Your task to perform on an android device: snooze an email in the gmail app Image 0: 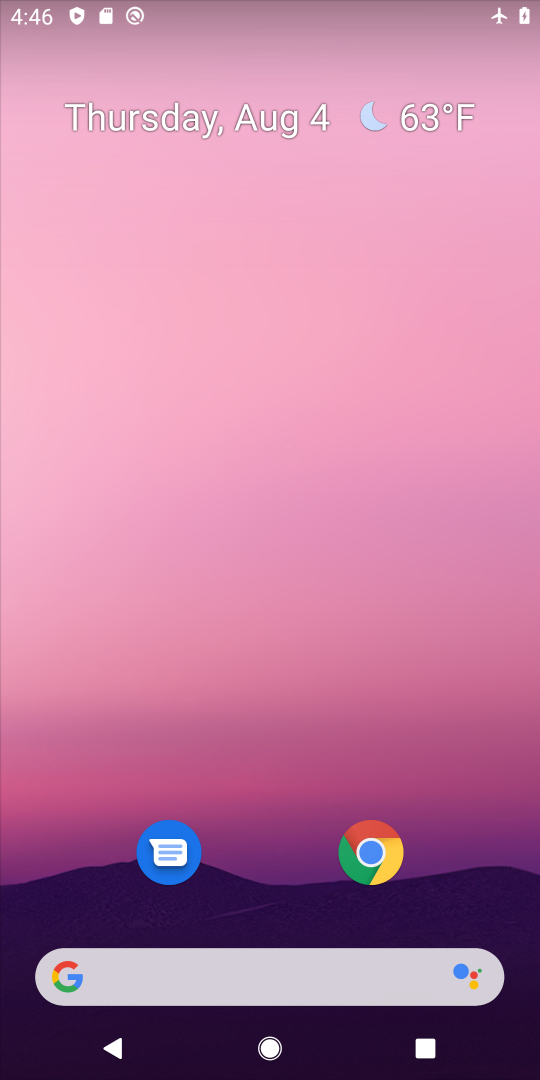
Step 0: drag from (284, 929) to (287, 168)
Your task to perform on an android device: snooze an email in the gmail app Image 1: 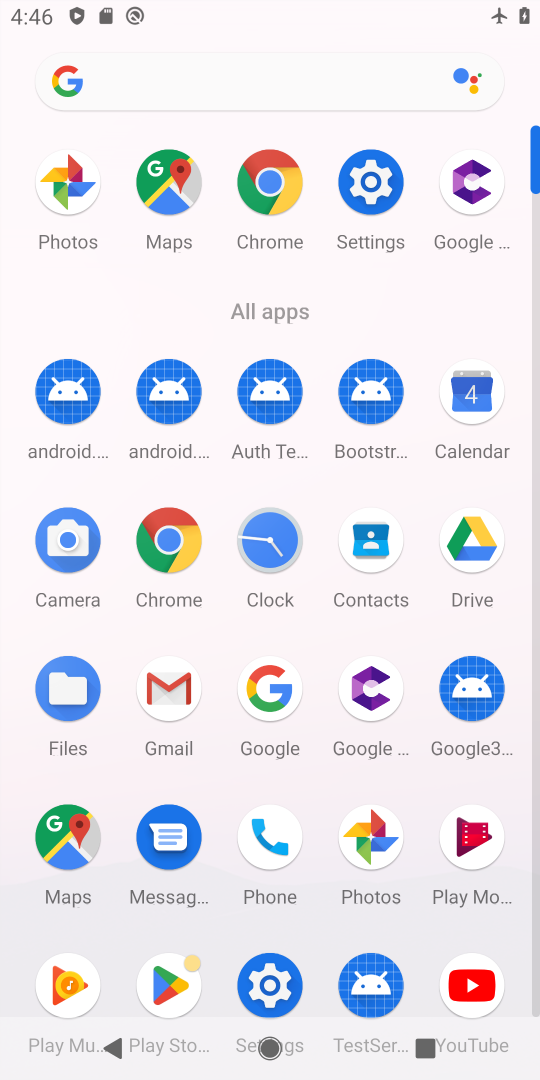
Step 1: click (164, 679)
Your task to perform on an android device: snooze an email in the gmail app Image 2: 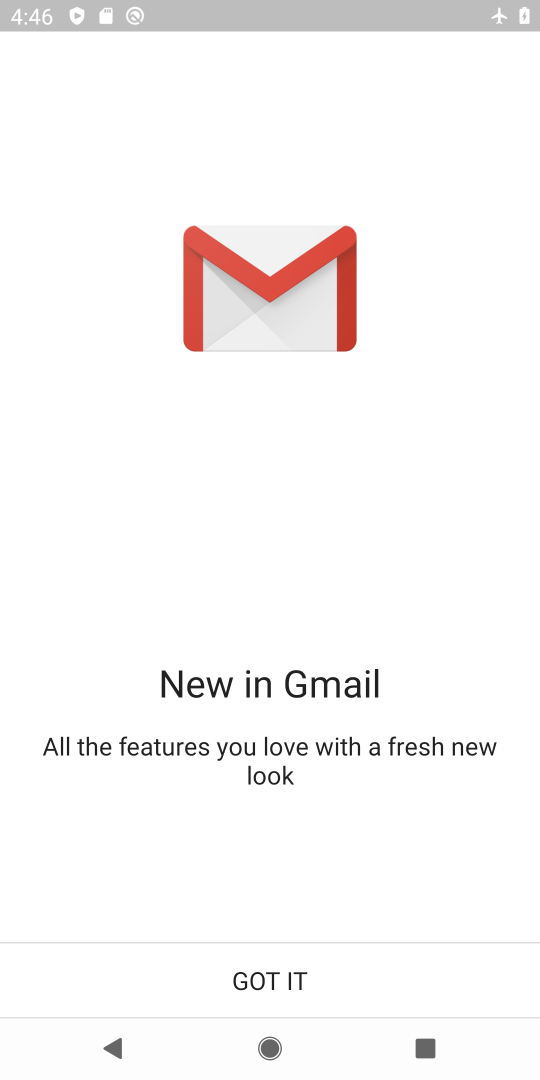
Step 2: click (257, 984)
Your task to perform on an android device: snooze an email in the gmail app Image 3: 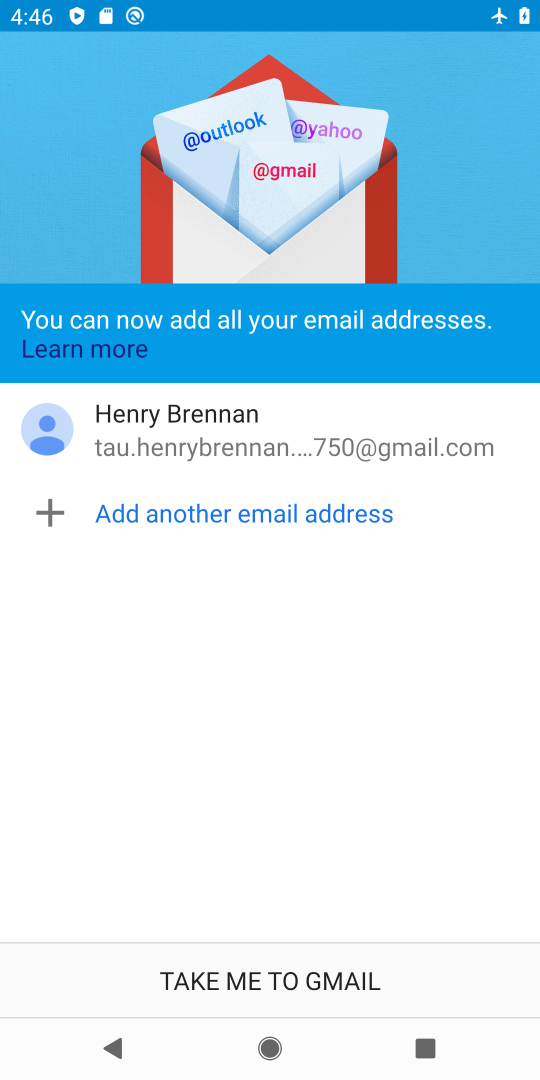
Step 3: click (179, 437)
Your task to perform on an android device: snooze an email in the gmail app Image 4: 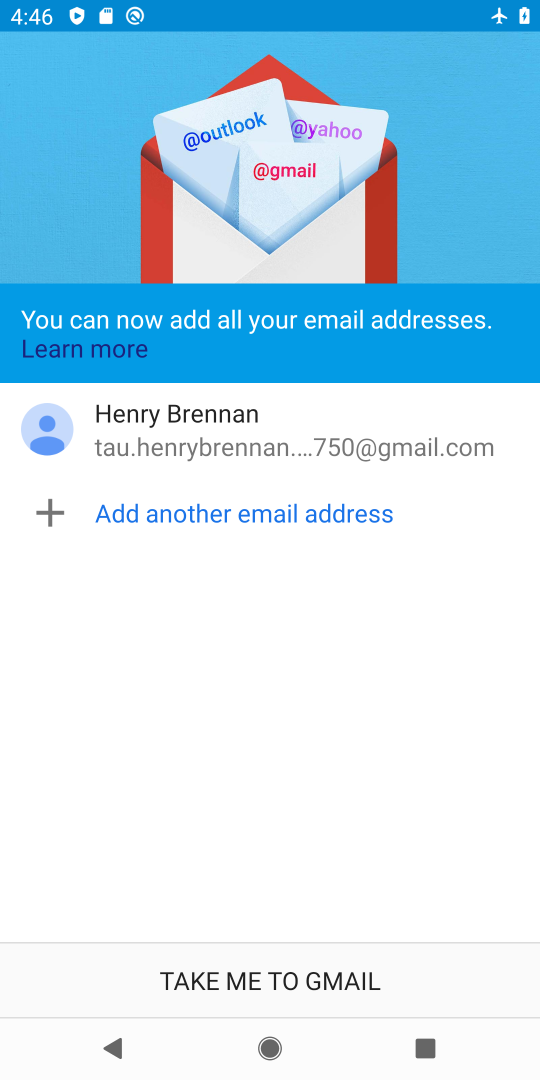
Step 4: click (179, 437)
Your task to perform on an android device: snooze an email in the gmail app Image 5: 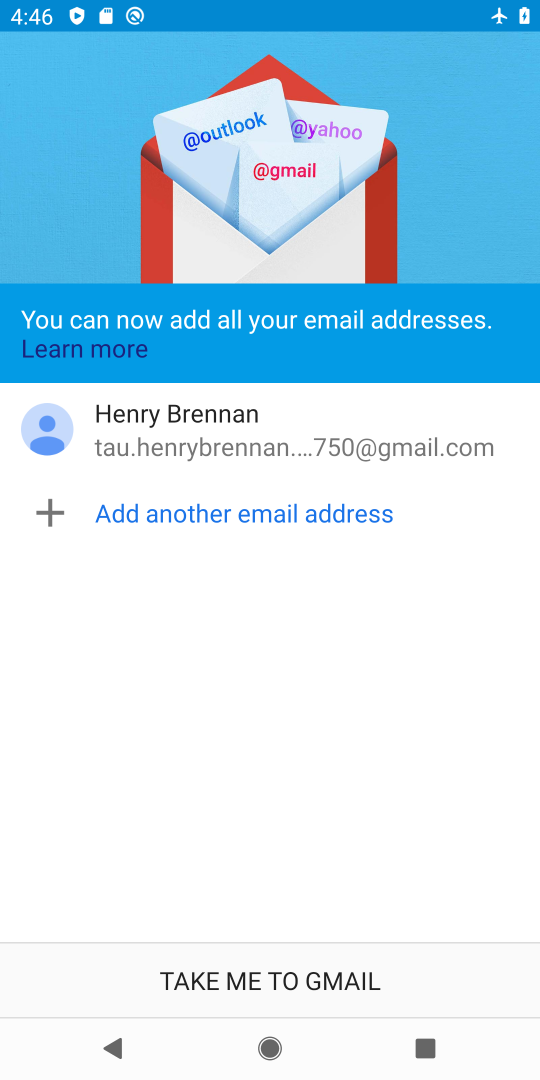
Step 5: click (209, 451)
Your task to perform on an android device: snooze an email in the gmail app Image 6: 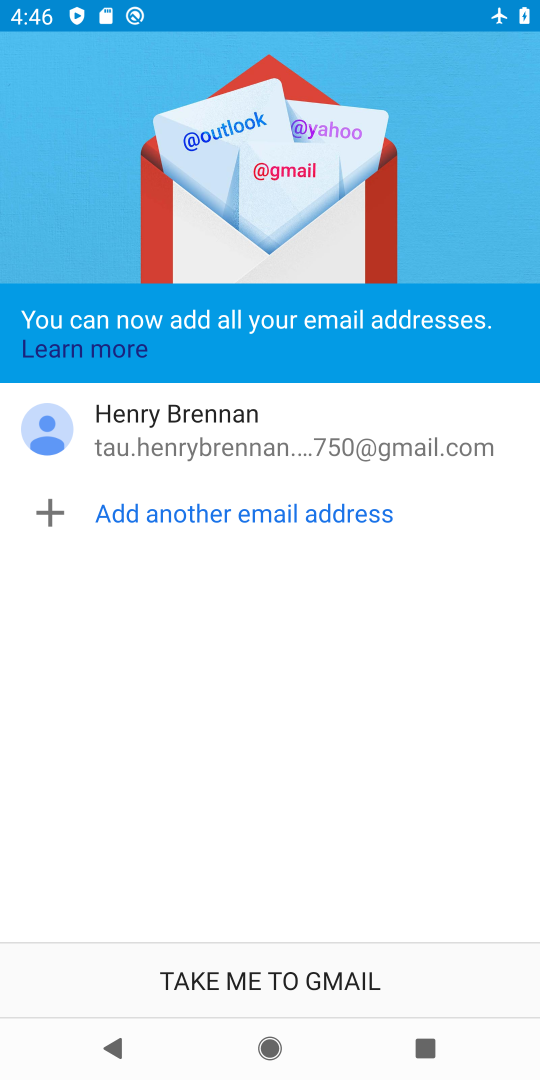
Step 6: click (198, 448)
Your task to perform on an android device: snooze an email in the gmail app Image 7: 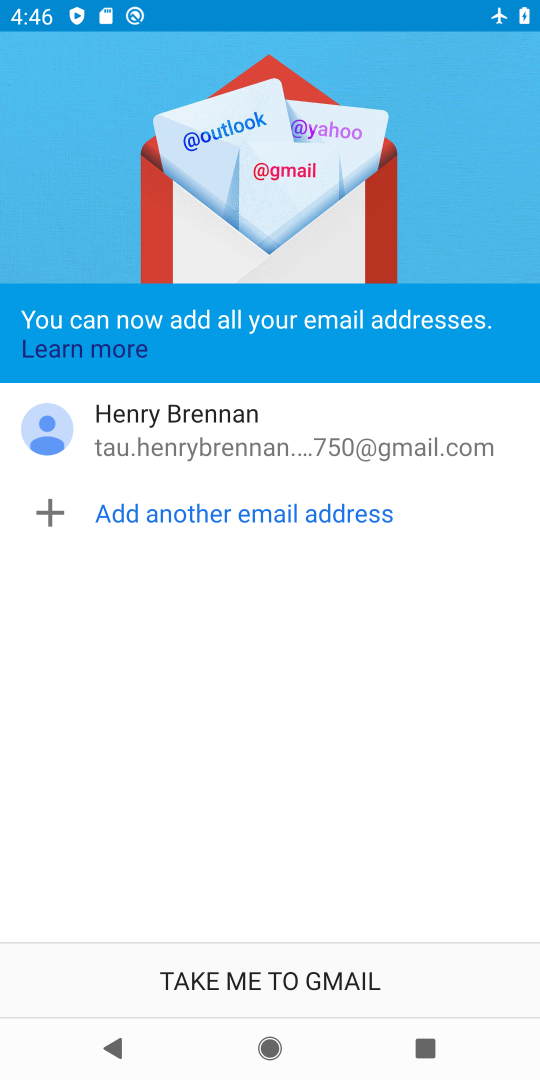
Step 7: click (186, 424)
Your task to perform on an android device: snooze an email in the gmail app Image 8: 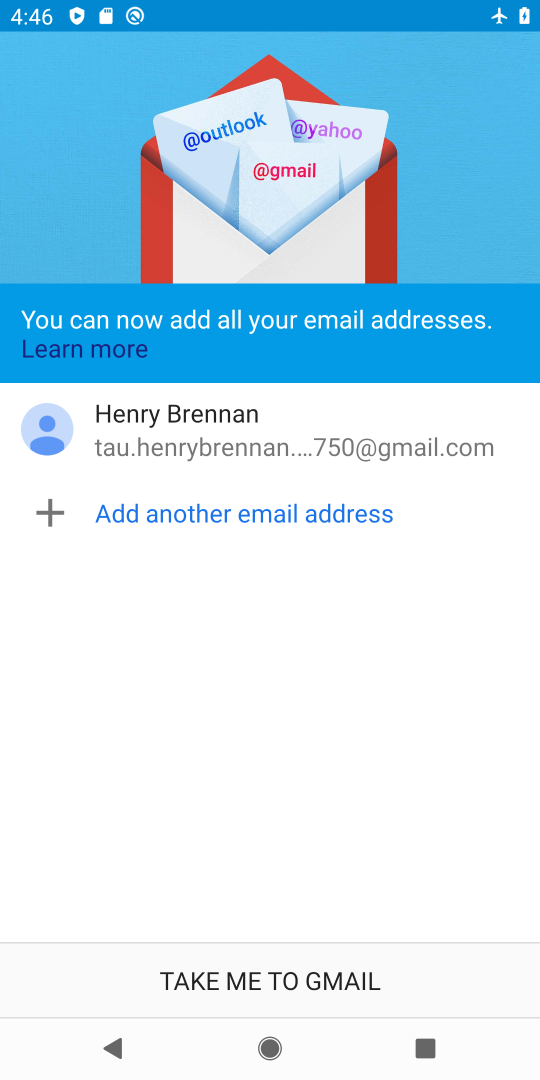
Step 8: click (186, 424)
Your task to perform on an android device: snooze an email in the gmail app Image 9: 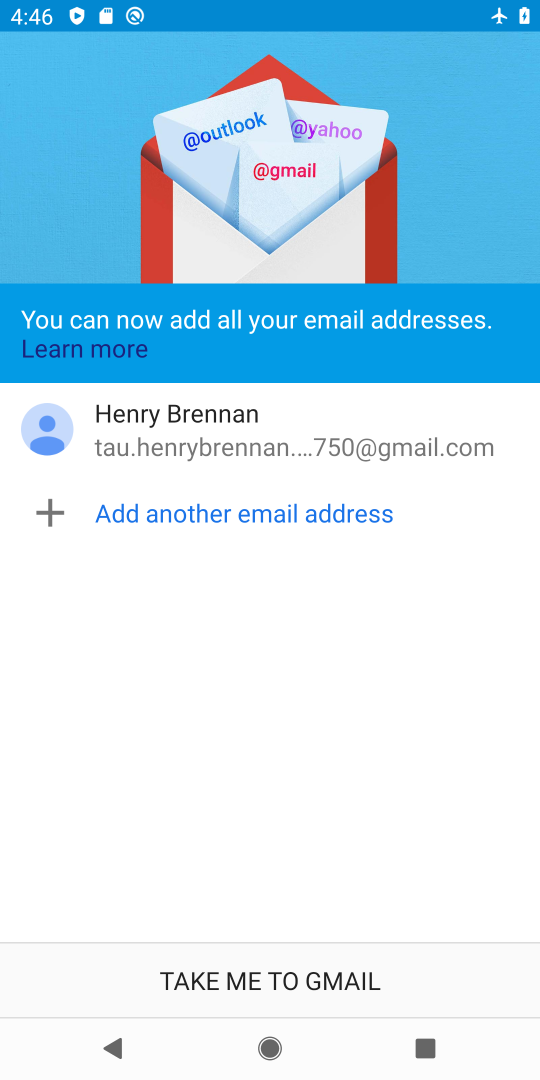
Step 9: click (158, 435)
Your task to perform on an android device: snooze an email in the gmail app Image 10: 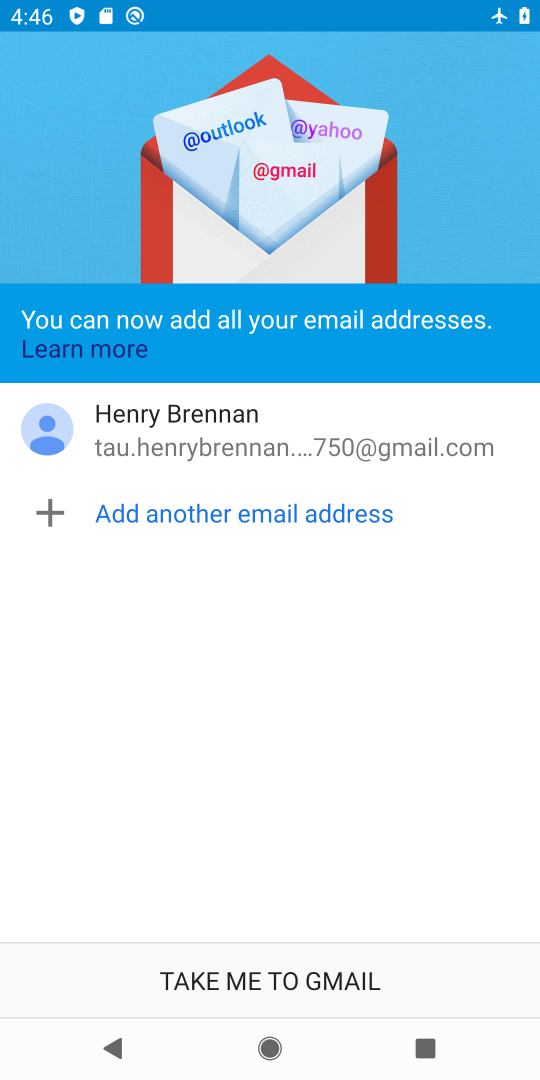
Step 10: click (273, 985)
Your task to perform on an android device: snooze an email in the gmail app Image 11: 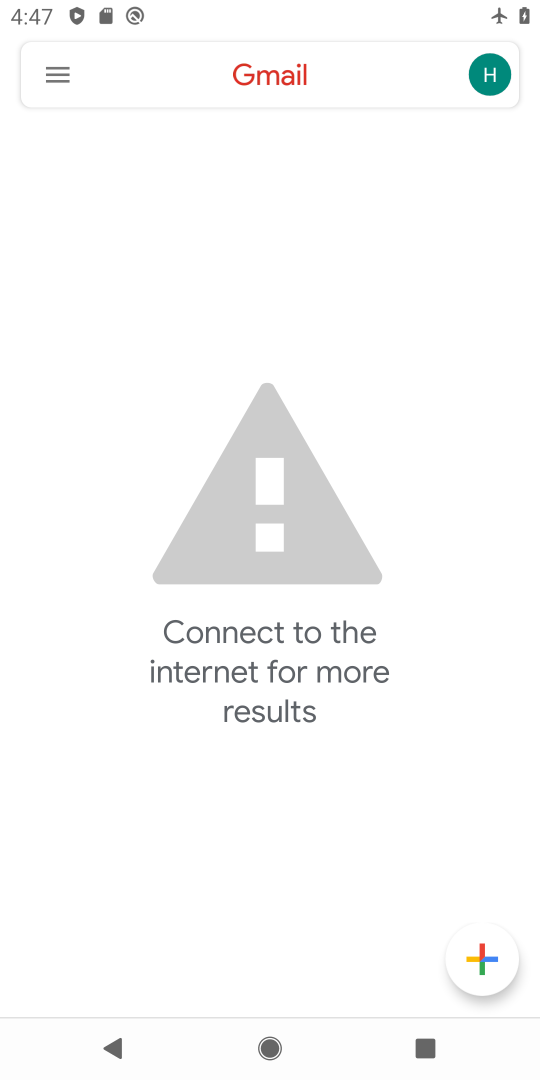
Step 11: click (50, 80)
Your task to perform on an android device: snooze an email in the gmail app Image 12: 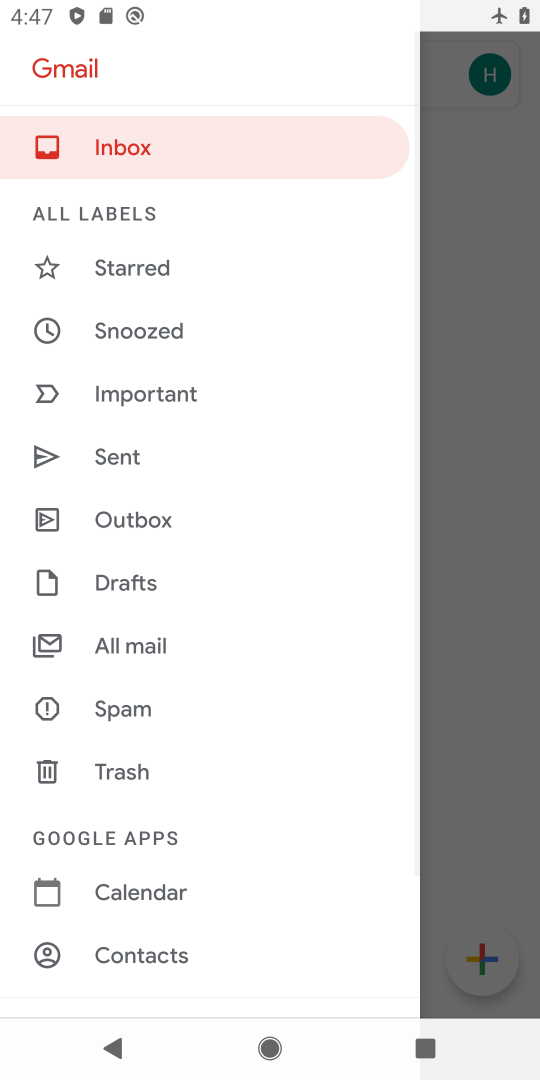
Step 12: click (105, 150)
Your task to perform on an android device: snooze an email in the gmail app Image 13: 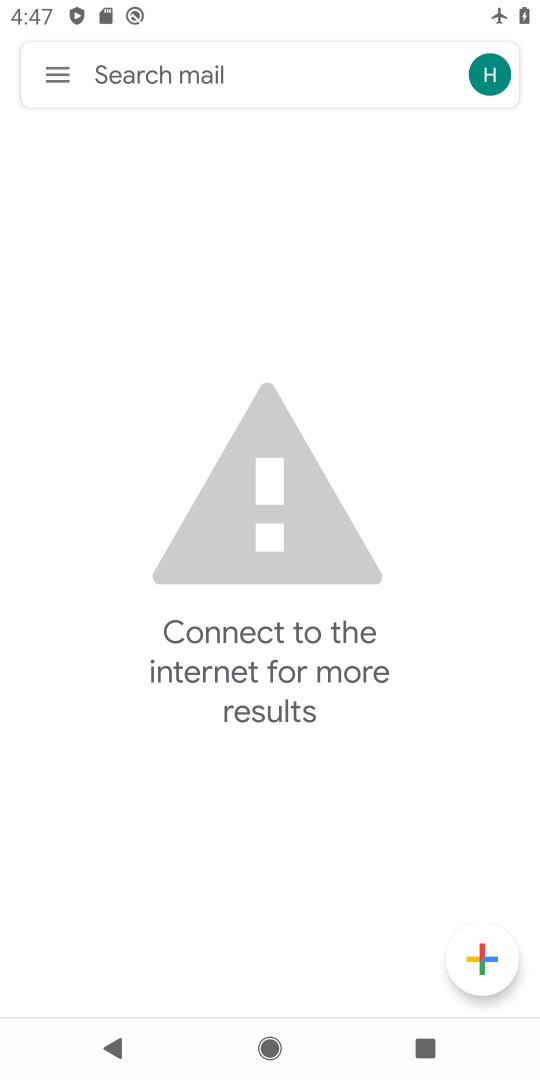
Step 13: task complete